Your task to perform on an android device: Open settings Image 0: 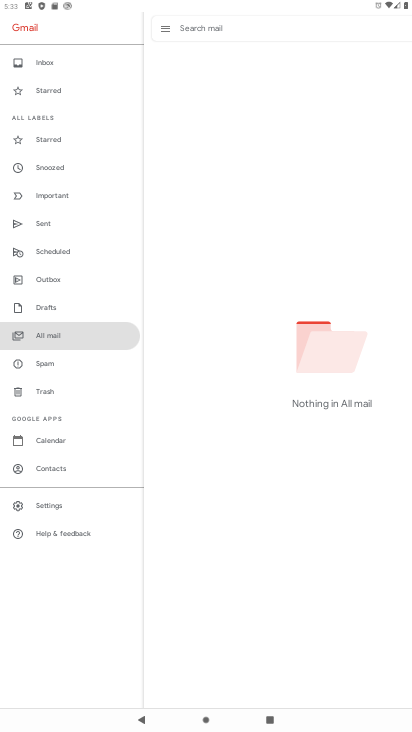
Step 0: press home button
Your task to perform on an android device: Open settings Image 1: 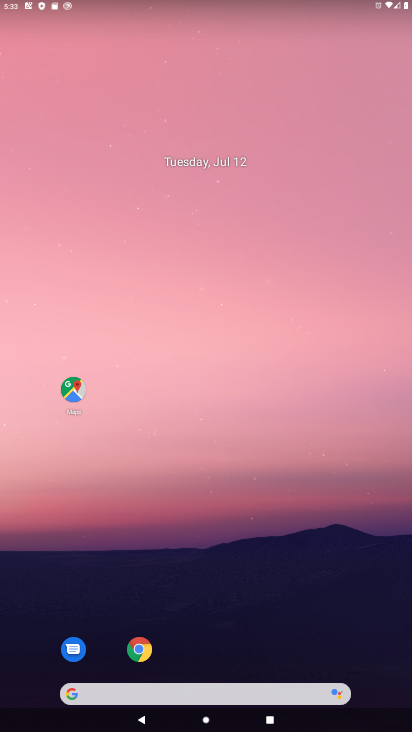
Step 1: drag from (167, 686) to (173, 177)
Your task to perform on an android device: Open settings Image 2: 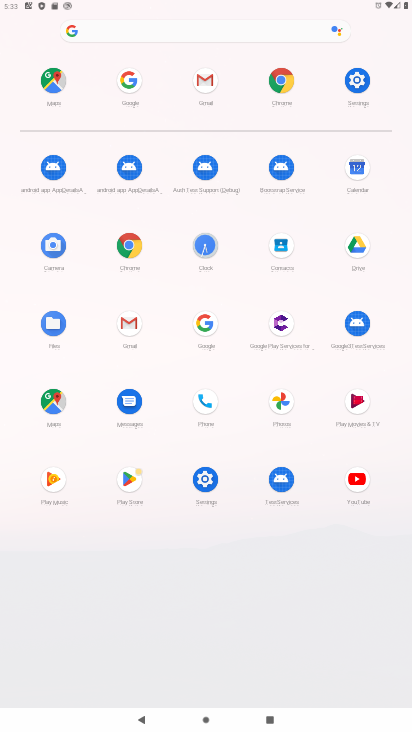
Step 2: click (205, 478)
Your task to perform on an android device: Open settings Image 3: 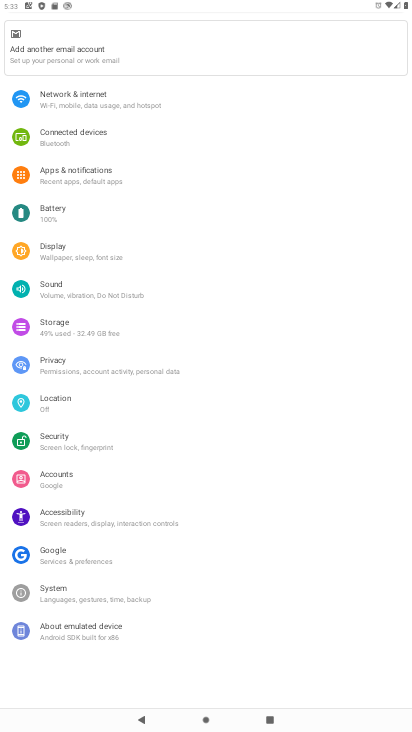
Step 3: task complete